Your task to perform on an android device: Open calendar and show me the second week of next month Image 0: 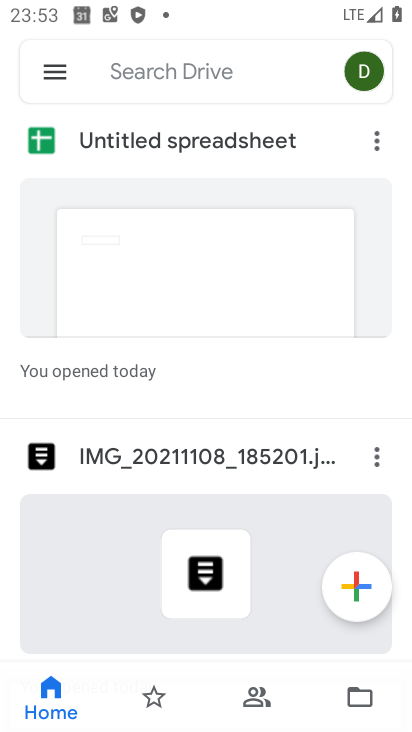
Step 0: press home button
Your task to perform on an android device: Open calendar and show me the second week of next month Image 1: 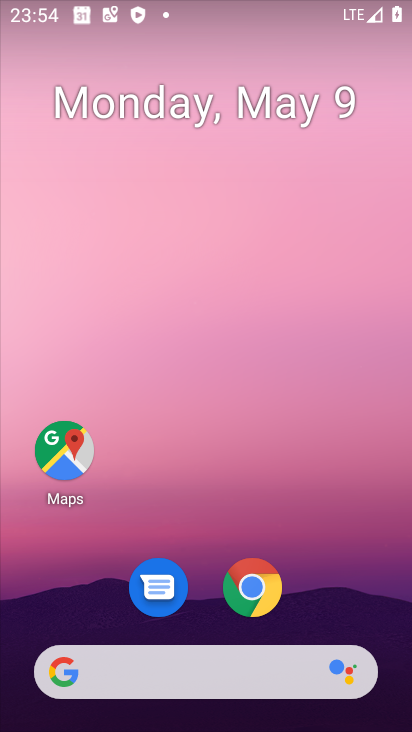
Step 1: click (158, 92)
Your task to perform on an android device: Open calendar and show me the second week of next month Image 2: 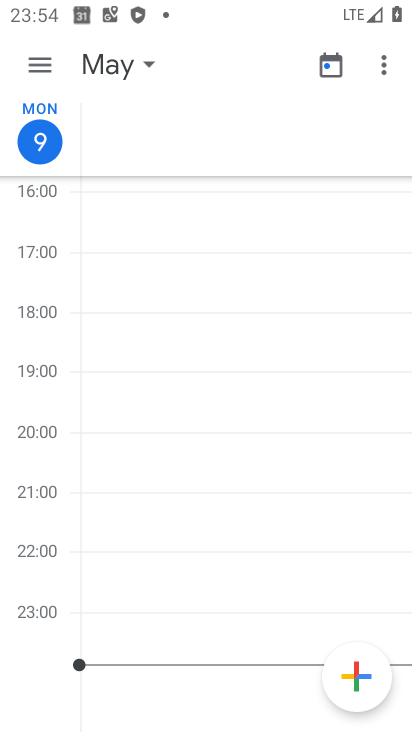
Step 2: click (151, 55)
Your task to perform on an android device: Open calendar and show me the second week of next month Image 3: 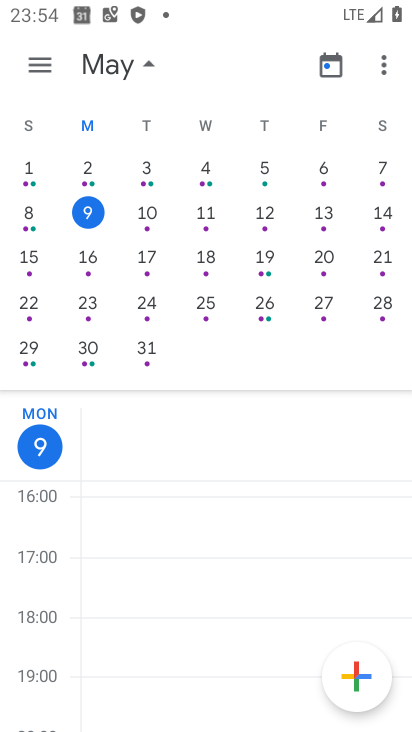
Step 3: drag from (372, 358) to (45, 330)
Your task to perform on an android device: Open calendar and show me the second week of next month Image 4: 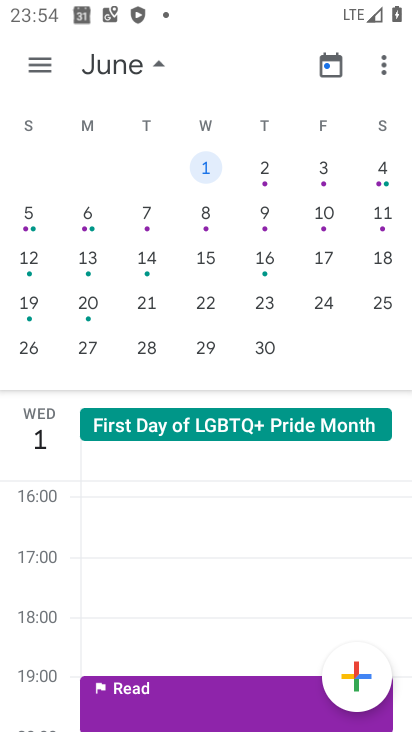
Step 4: click (204, 212)
Your task to perform on an android device: Open calendar and show me the second week of next month Image 5: 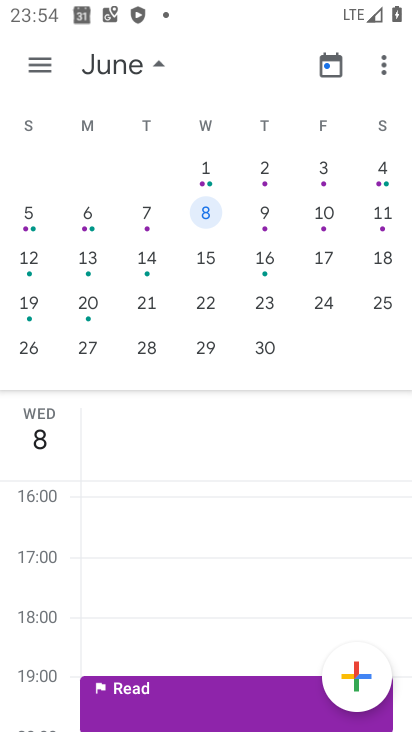
Step 5: task complete